Your task to perform on an android device: find snoozed emails in the gmail app Image 0: 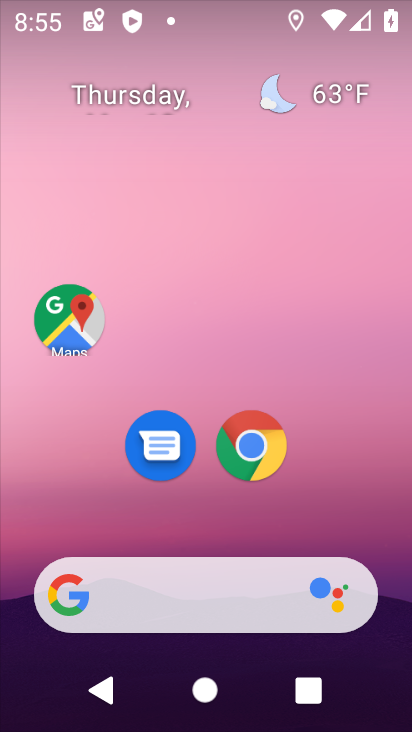
Step 0: drag from (202, 524) to (264, 6)
Your task to perform on an android device: find snoozed emails in the gmail app Image 1: 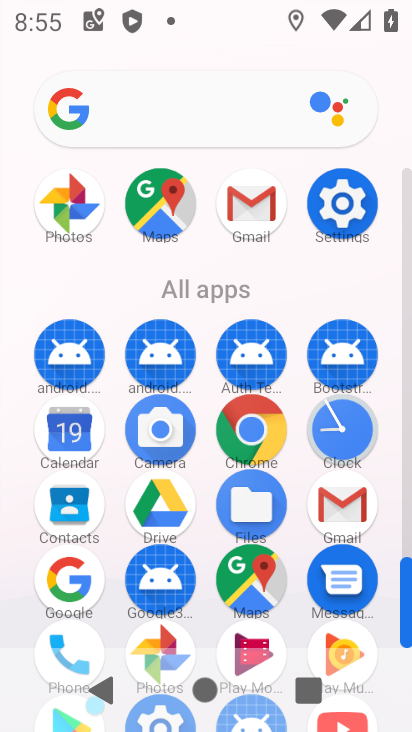
Step 1: click (347, 502)
Your task to perform on an android device: find snoozed emails in the gmail app Image 2: 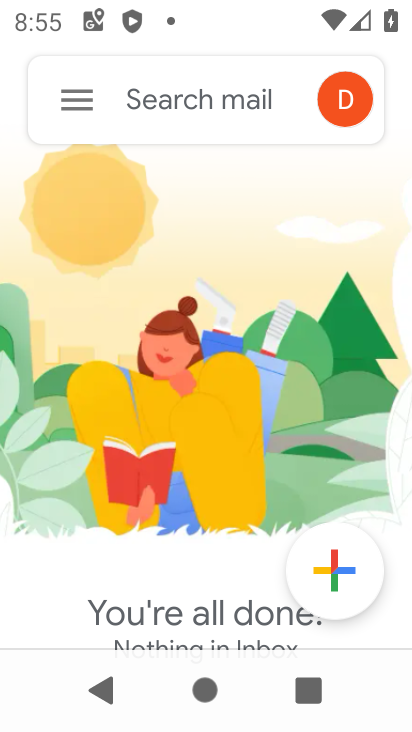
Step 2: click (73, 106)
Your task to perform on an android device: find snoozed emails in the gmail app Image 3: 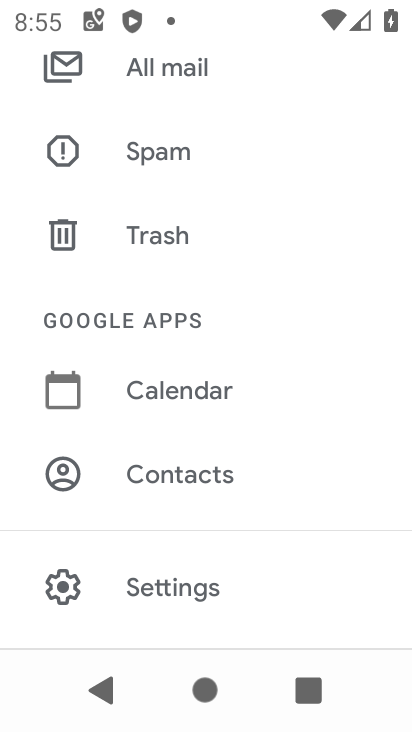
Step 3: drag from (206, 247) to (205, 496)
Your task to perform on an android device: find snoozed emails in the gmail app Image 4: 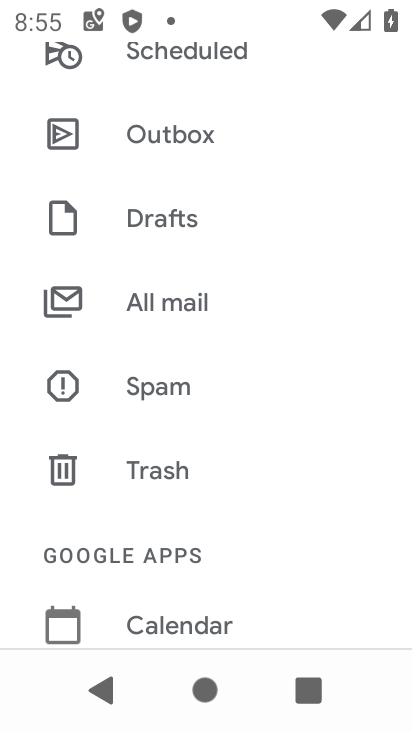
Step 4: drag from (223, 224) to (226, 426)
Your task to perform on an android device: find snoozed emails in the gmail app Image 5: 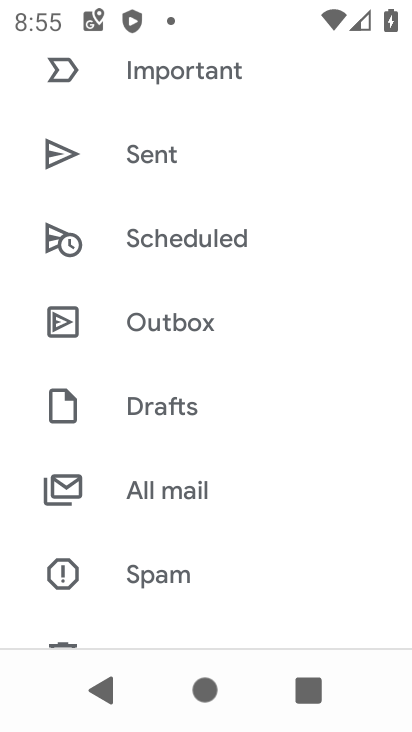
Step 5: drag from (210, 258) to (210, 645)
Your task to perform on an android device: find snoozed emails in the gmail app Image 6: 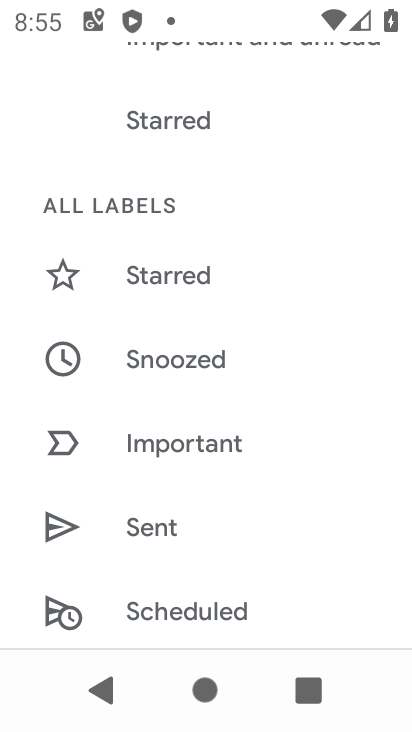
Step 6: click (172, 276)
Your task to perform on an android device: find snoozed emails in the gmail app Image 7: 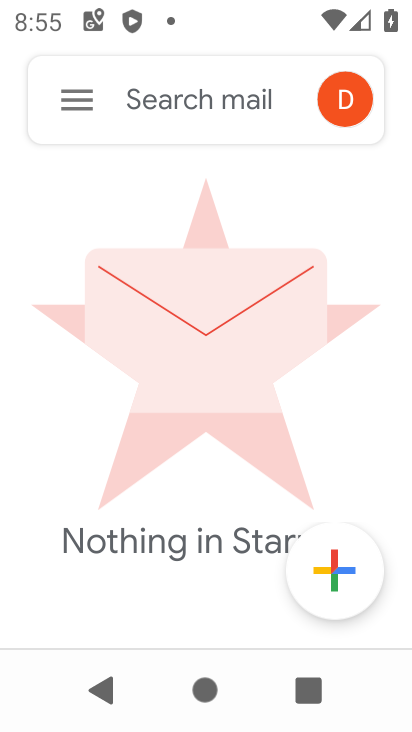
Step 7: click (66, 100)
Your task to perform on an android device: find snoozed emails in the gmail app Image 8: 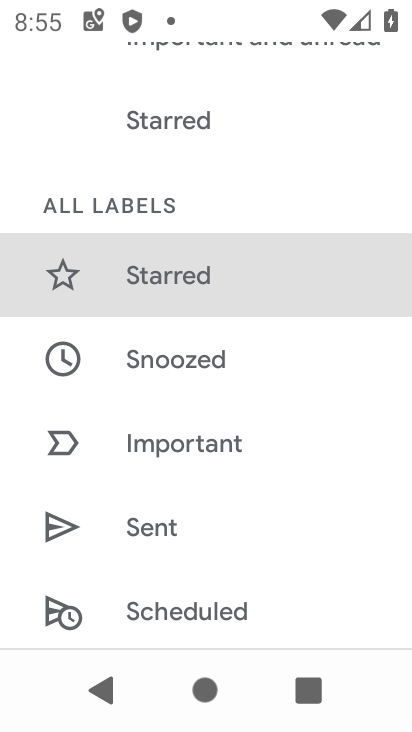
Step 8: click (183, 374)
Your task to perform on an android device: find snoozed emails in the gmail app Image 9: 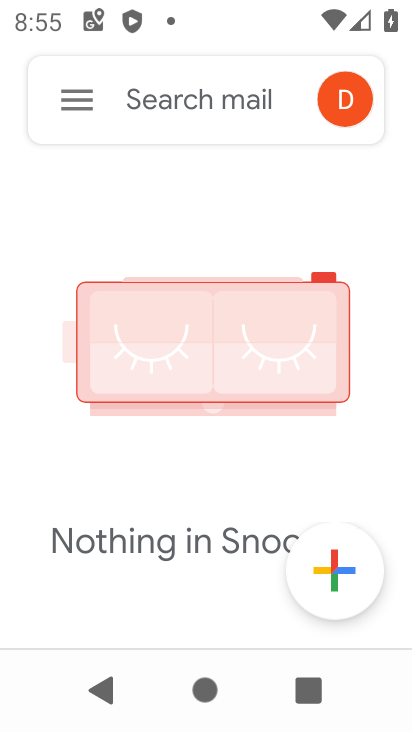
Step 9: task complete